Your task to perform on an android device: open a new tab in the chrome app Image 0: 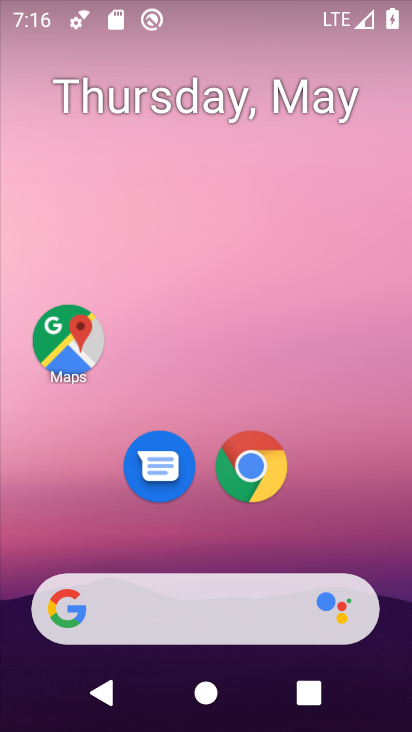
Step 0: click (230, 484)
Your task to perform on an android device: open a new tab in the chrome app Image 1: 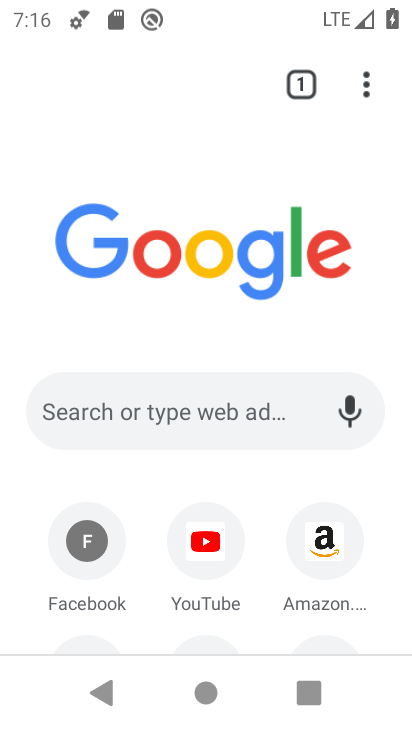
Step 1: click (382, 75)
Your task to perform on an android device: open a new tab in the chrome app Image 2: 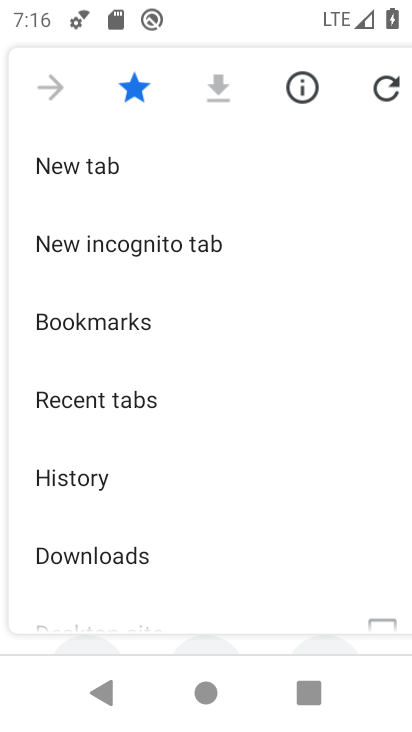
Step 2: drag from (211, 473) to (221, 260)
Your task to perform on an android device: open a new tab in the chrome app Image 3: 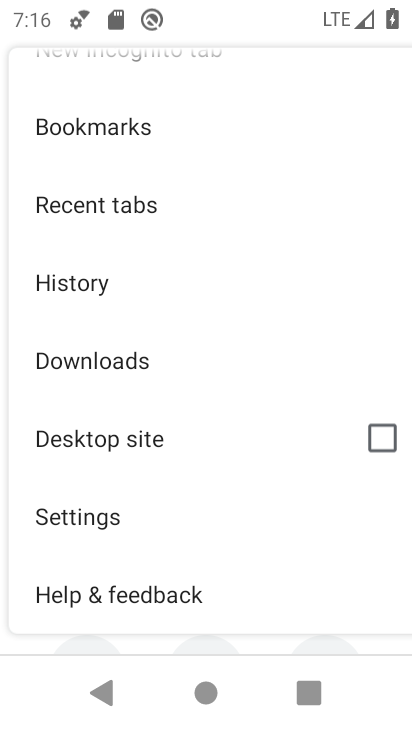
Step 3: click (183, 523)
Your task to perform on an android device: open a new tab in the chrome app Image 4: 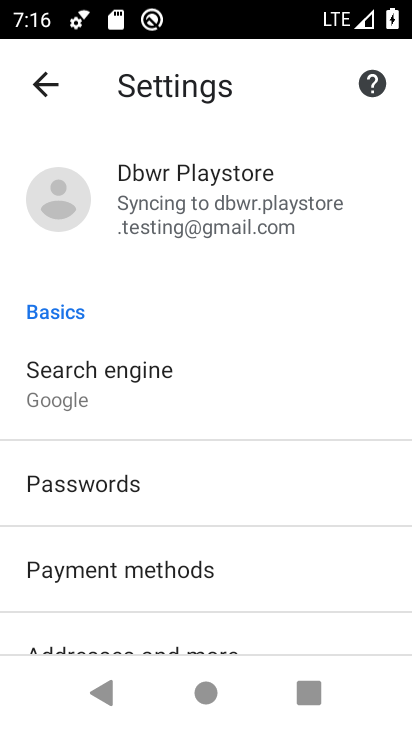
Step 4: click (44, 84)
Your task to perform on an android device: open a new tab in the chrome app Image 5: 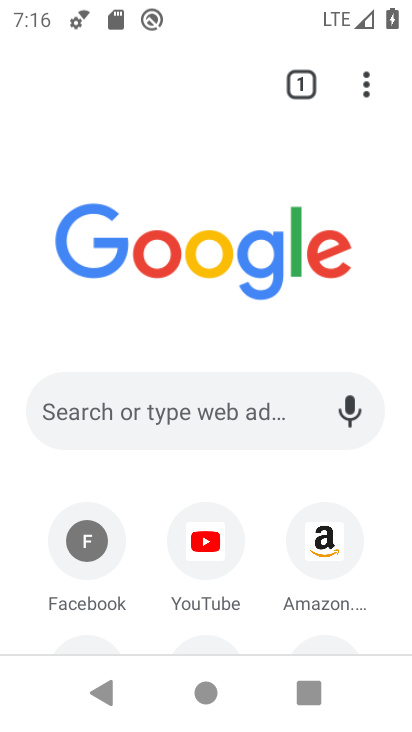
Step 5: click (306, 85)
Your task to perform on an android device: open a new tab in the chrome app Image 6: 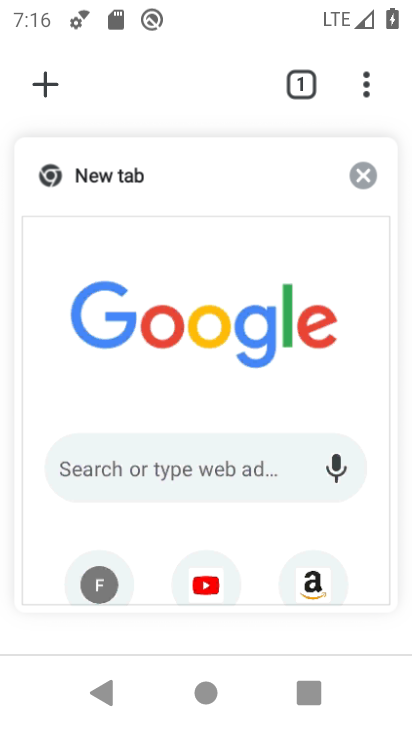
Step 6: click (38, 85)
Your task to perform on an android device: open a new tab in the chrome app Image 7: 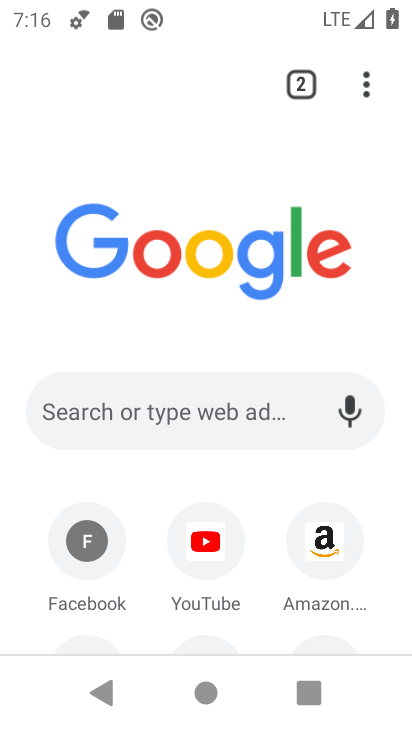
Step 7: task complete